Your task to perform on an android device: Open ESPN.com Image 0: 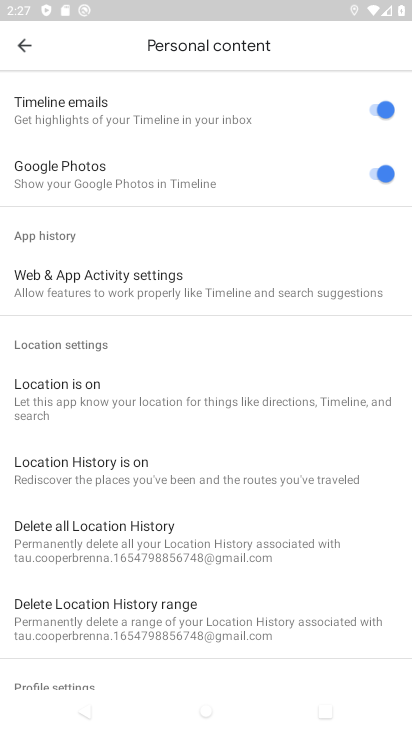
Step 0: press home button
Your task to perform on an android device: Open ESPN.com Image 1: 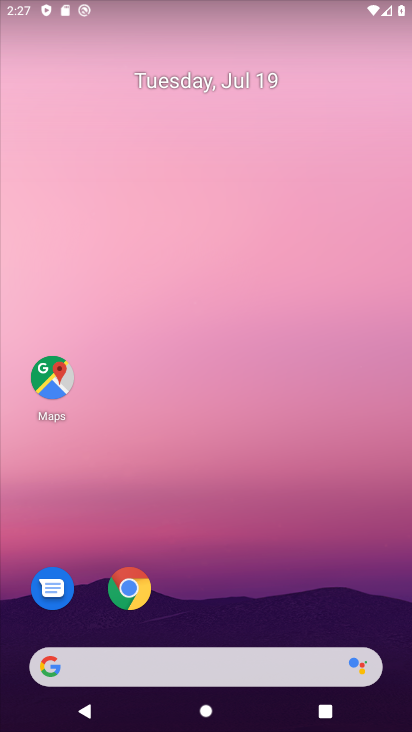
Step 1: click (129, 589)
Your task to perform on an android device: Open ESPN.com Image 2: 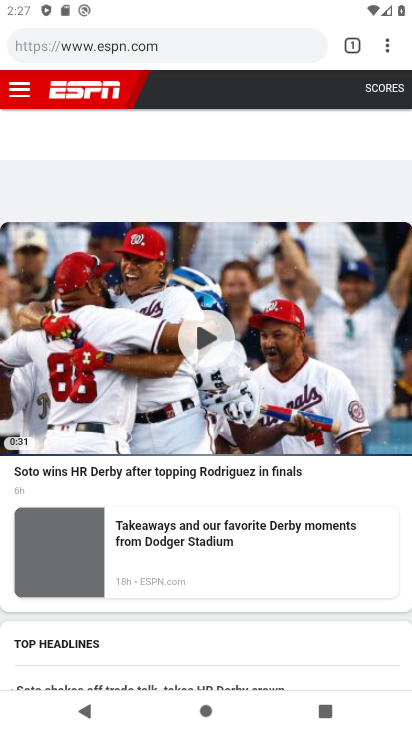
Step 2: task complete